Your task to perform on an android device: Show me recent news Image 0: 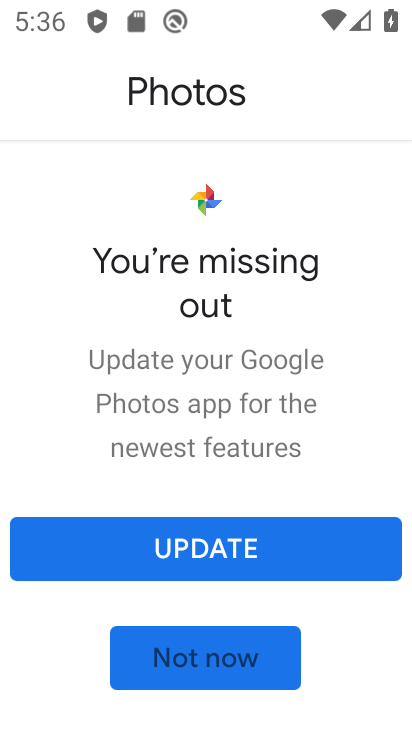
Step 0: press home button
Your task to perform on an android device: Show me recent news Image 1: 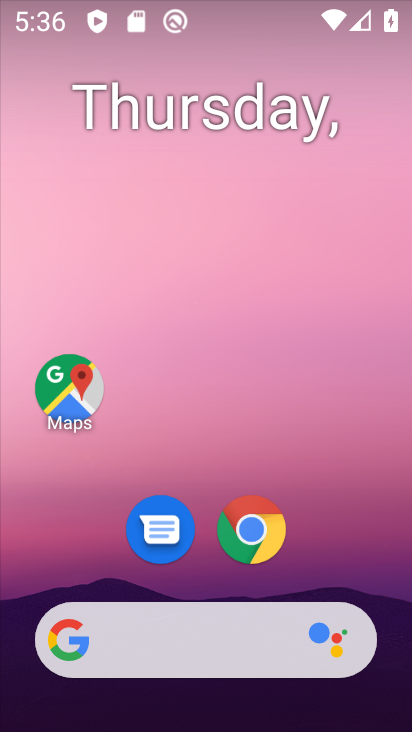
Step 1: drag from (335, 551) to (281, 90)
Your task to perform on an android device: Show me recent news Image 2: 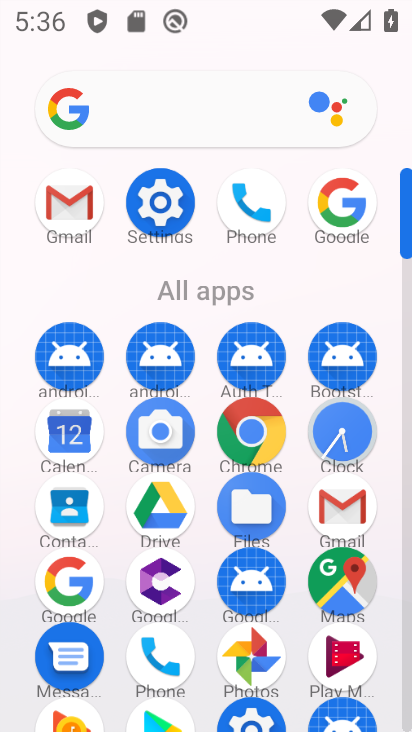
Step 2: click (64, 585)
Your task to perform on an android device: Show me recent news Image 3: 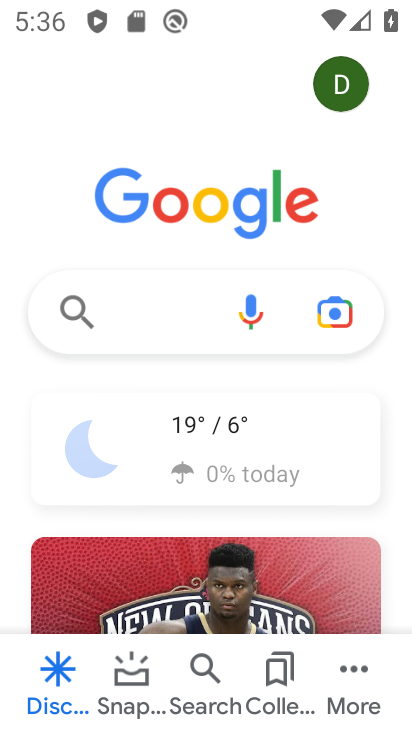
Step 3: click (171, 311)
Your task to perform on an android device: Show me recent news Image 4: 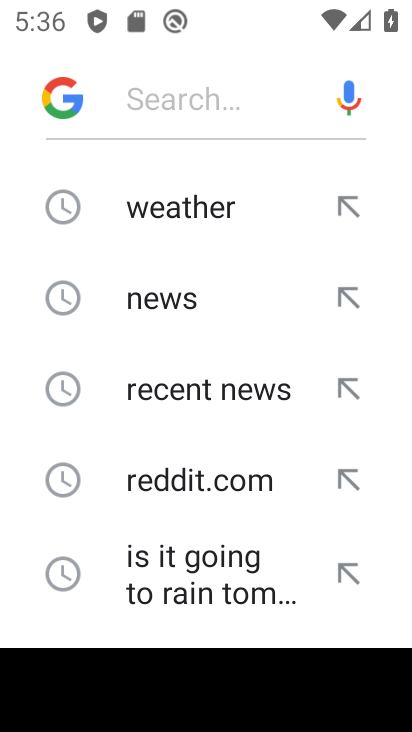
Step 4: click (248, 388)
Your task to perform on an android device: Show me recent news Image 5: 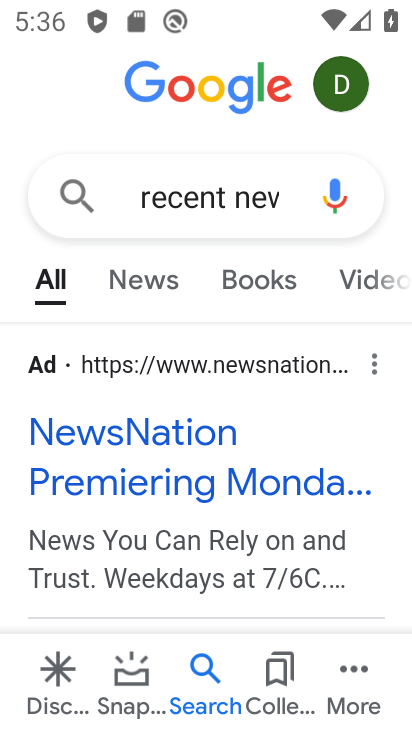
Step 5: task complete